Your task to perform on an android device: What's the weather today? Image 0: 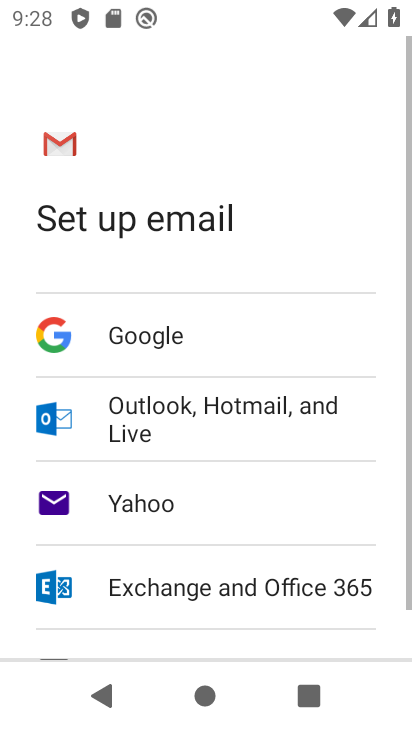
Step 0: press home button
Your task to perform on an android device: What's the weather today? Image 1: 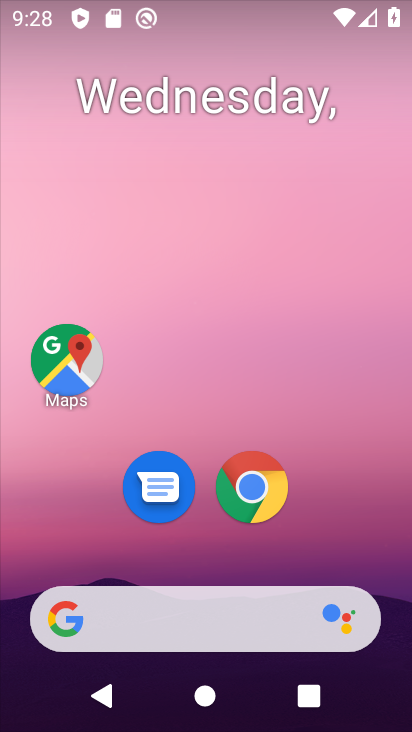
Step 1: click (213, 599)
Your task to perform on an android device: What's the weather today? Image 2: 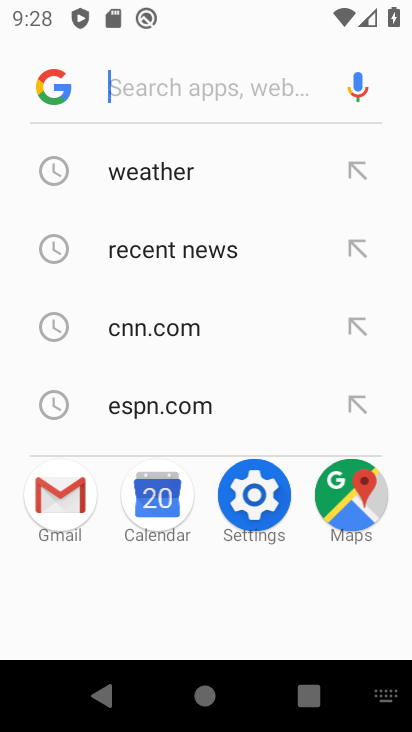
Step 2: click (181, 76)
Your task to perform on an android device: What's the weather today? Image 3: 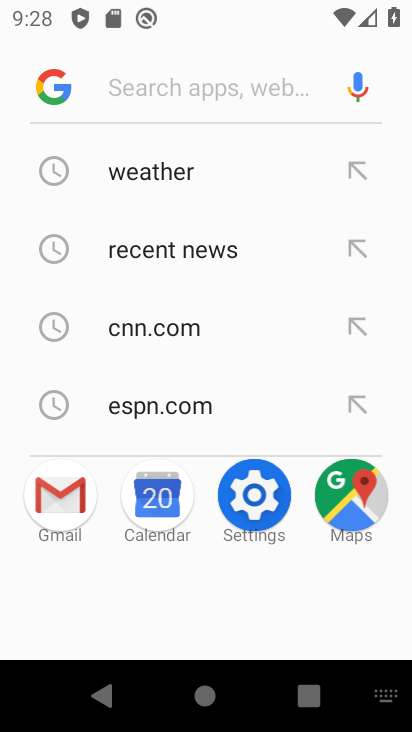
Step 3: click (190, 175)
Your task to perform on an android device: What's the weather today? Image 4: 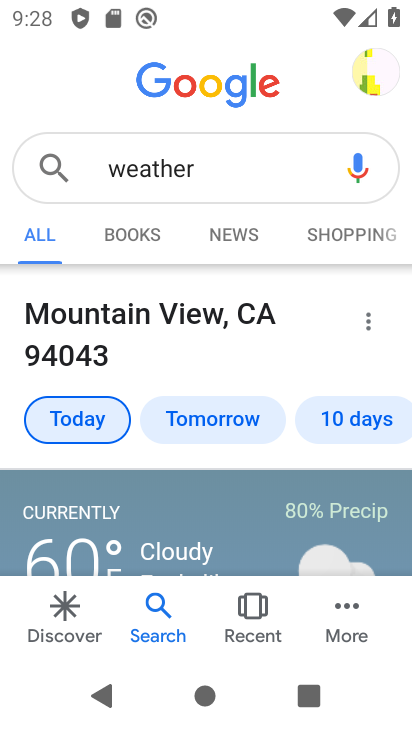
Step 4: task complete